Your task to perform on an android device: Search for sushi restaurants on Maps Image 0: 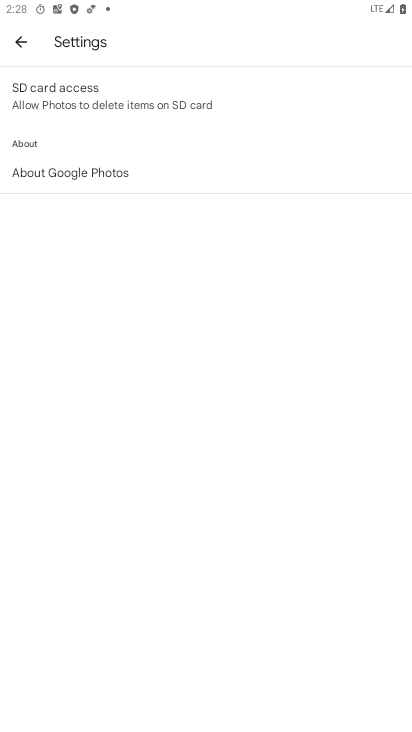
Step 0: click (18, 52)
Your task to perform on an android device: Search for sushi restaurants on Maps Image 1: 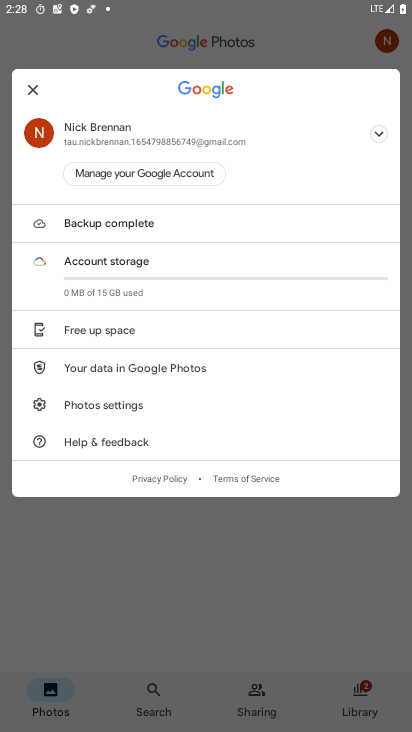
Step 1: click (203, 592)
Your task to perform on an android device: Search for sushi restaurants on Maps Image 2: 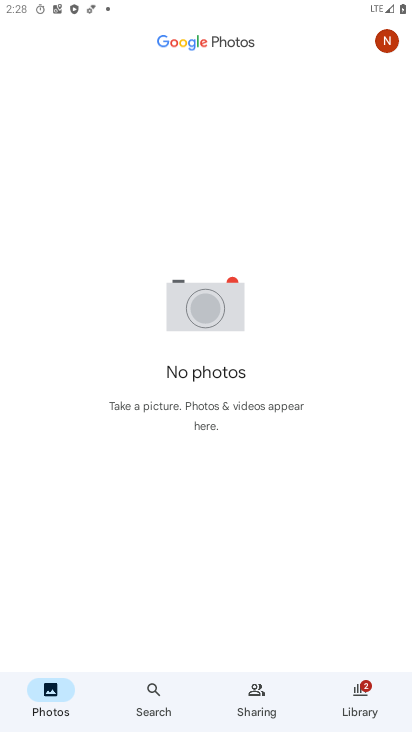
Step 2: press home button
Your task to perform on an android device: Search for sushi restaurants on Maps Image 3: 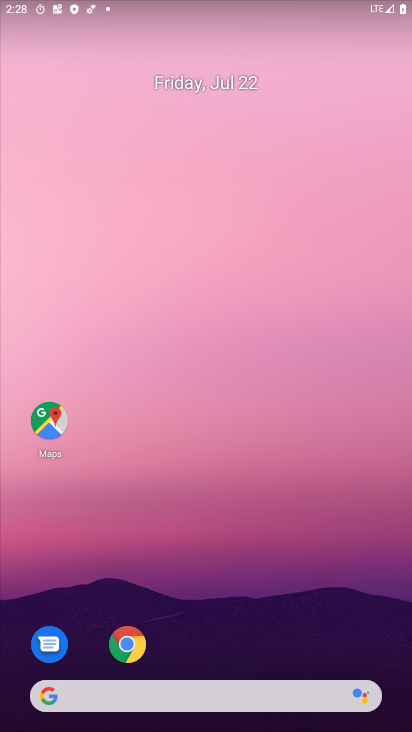
Step 3: click (42, 454)
Your task to perform on an android device: Search for sushi restaurants on Maps Image 4: 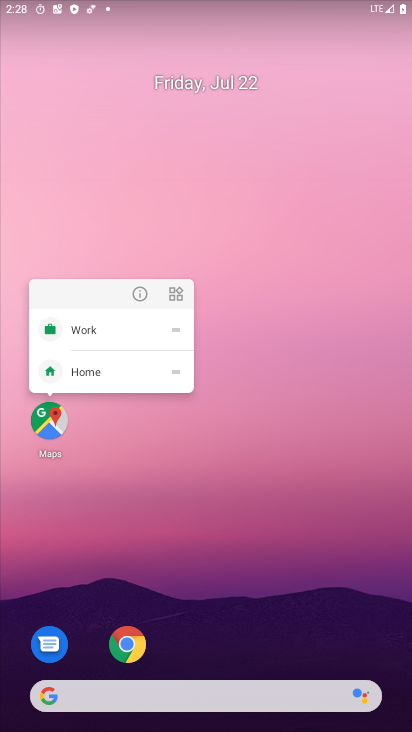
Step 4: click (77, 485)
Your task to perform on an android device: Search for sushi restaurants on Maps Image 5: 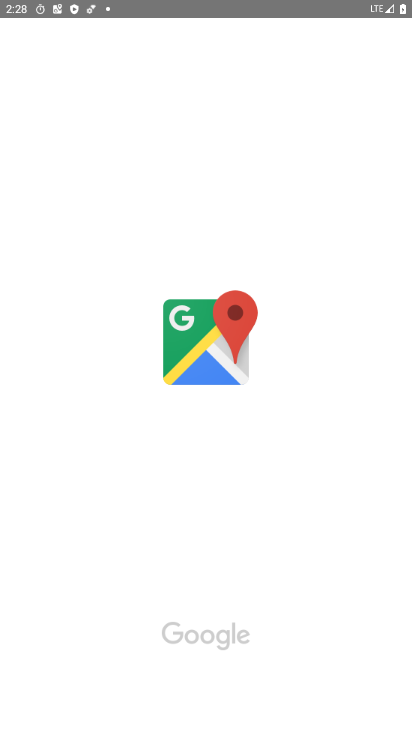
Step 5: click (51, 430)
Your task to perform on an android device: Search for sushi restaurants on Maps Image 6: 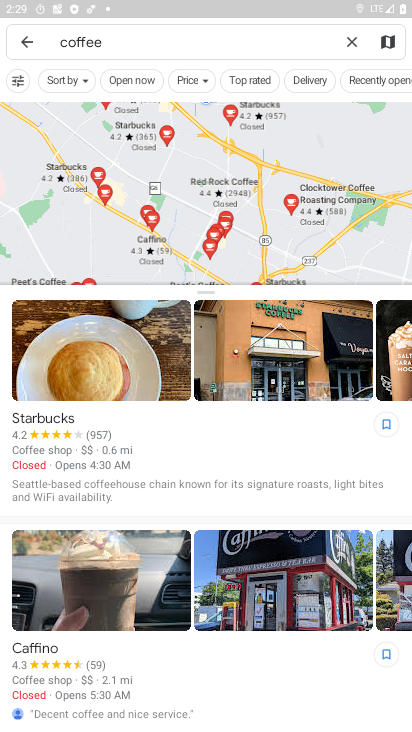
Step 6: click (354, 48)
Your task to perform on an android device: Search for sushi restaurants on Maps Image 7: 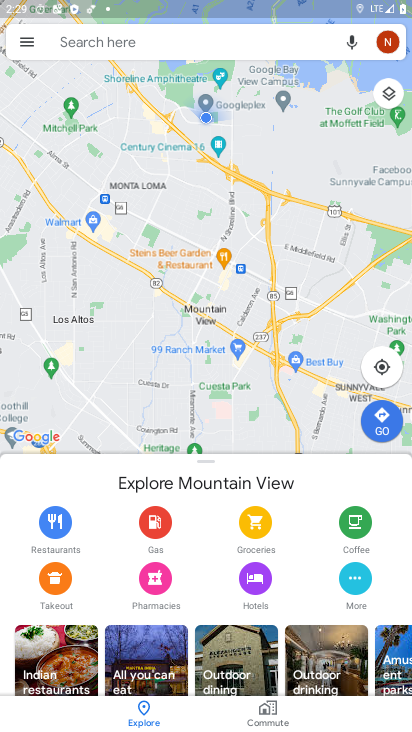
Step 7: click (240, 42)
Your task to perform on an android device: Search for sushi restaurants on Maps Image 8: 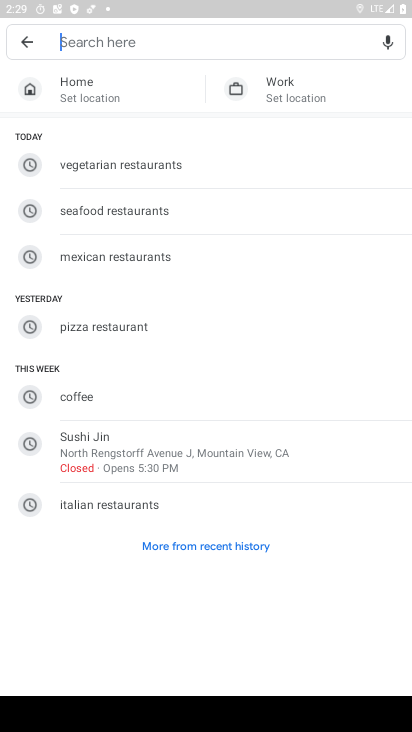
Step 8: type "sushi"
Your task to perform on an android device: Search for sushi restaurants on Maps Image 9: 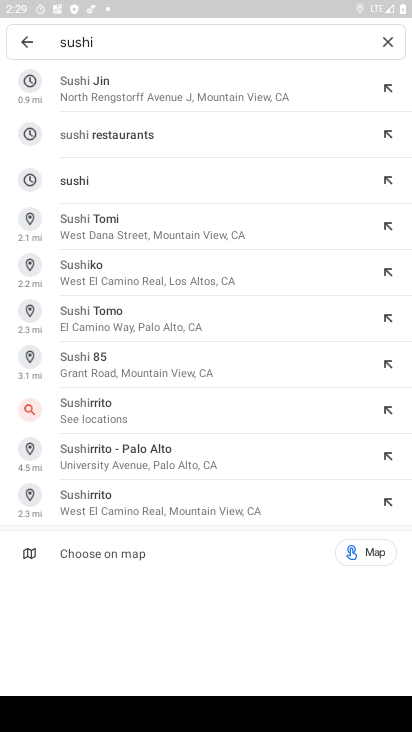
Step 9: click (381, 38)
Your task to perform on an android device: Search for sushi restaurants on Maps Image 10: 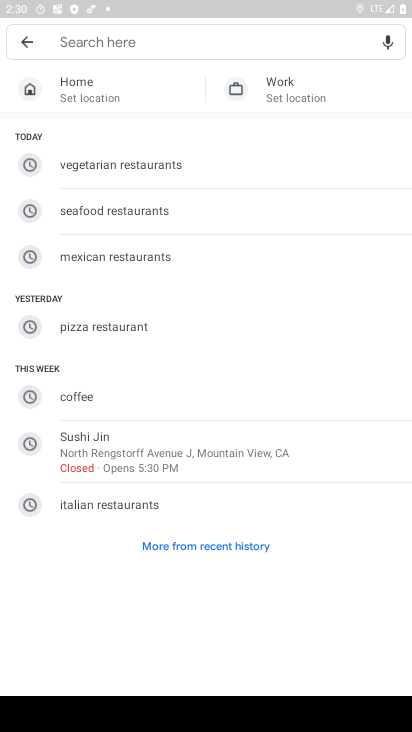
Step 10: type "sushi restaurants"
Your task to perform on an android device: Search for sushi restaurants on Maps Image 11: 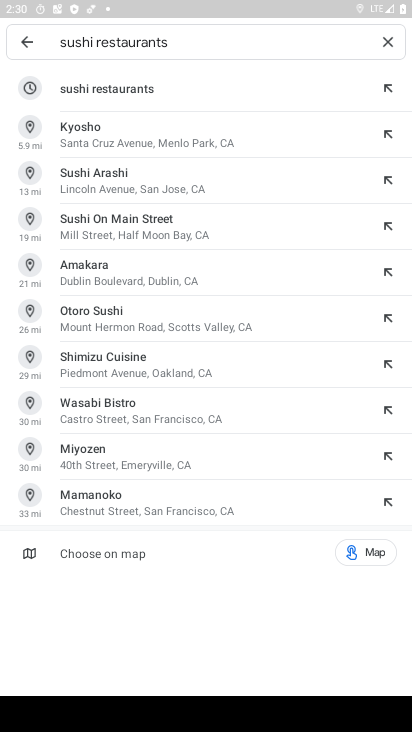
Step 11: click (172, 79)
Your task to perform on an android device: Search for sushi restaurants on Maps Image 12: 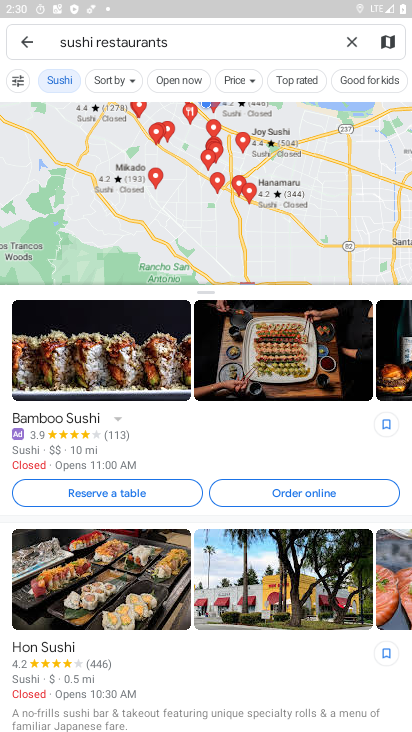
Step 12: task complete